Your task to perform on an android device: What is the recent news? Image 0: 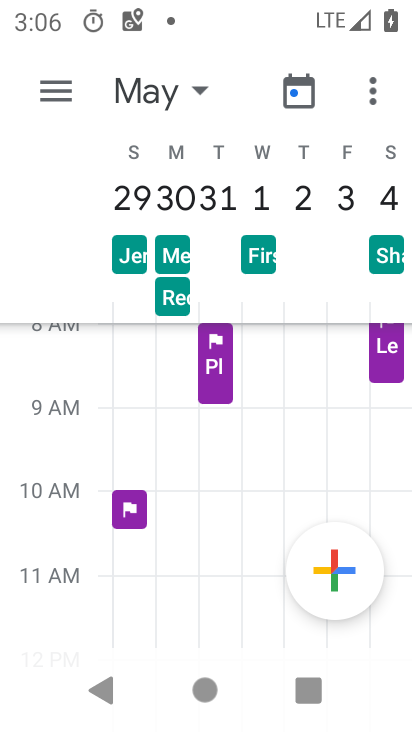
Step 0: press home button
Your task to perform on an android device: What is the recent news? Image 1: 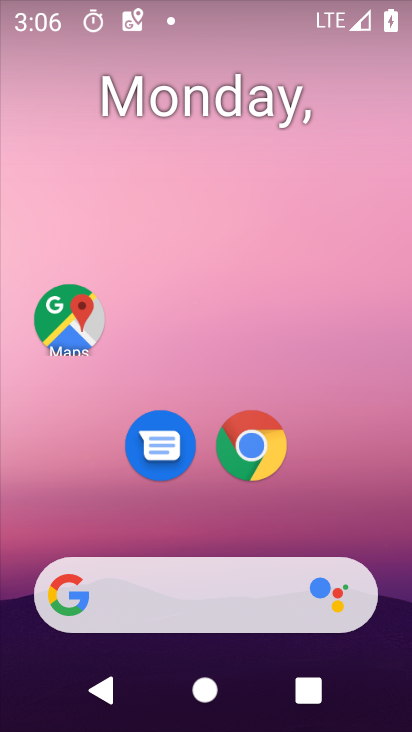
Step 1: task complete